Your task to perform on an android device: Go to battery settings Image 0: 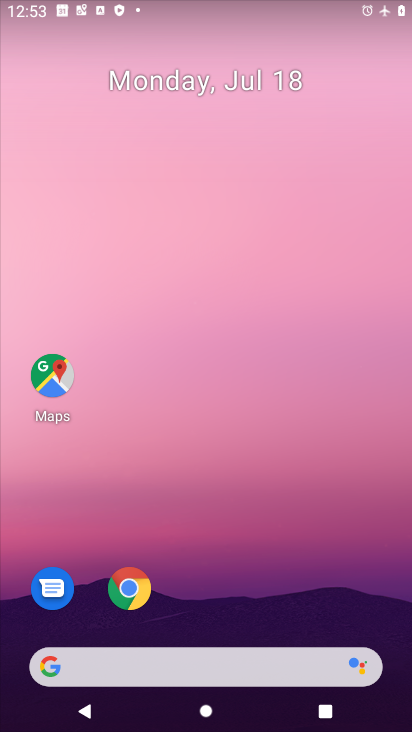
Step 0: drag from (297, 624) to (291, 102)
Your task to perform on an android device: Go to battery settings Image 1: 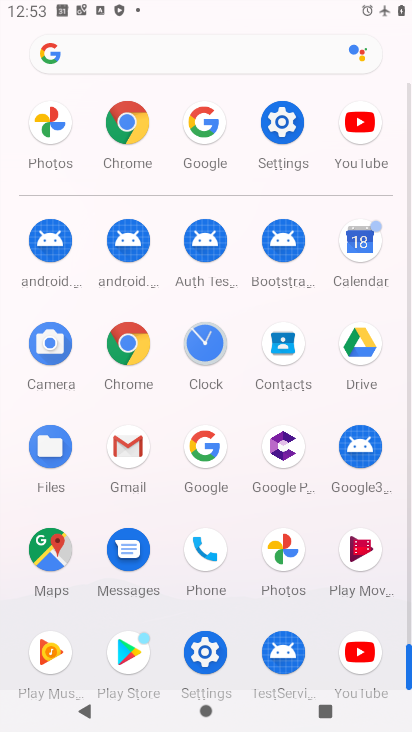
Step 1: click (251, 143)
Your task to perform on an android device: Go to battery settings Image 2: 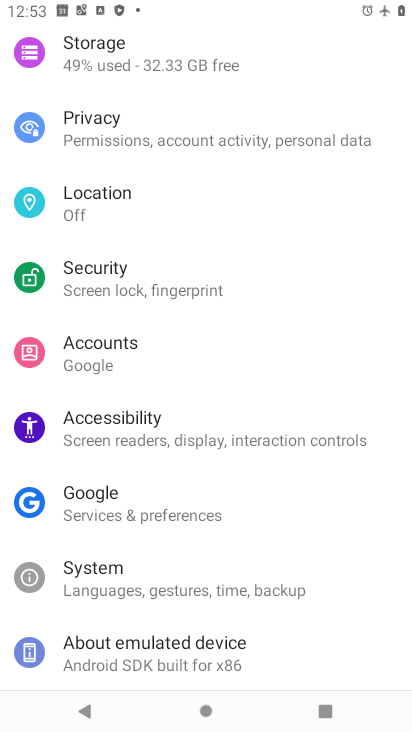
Step 2: drag from (114, 130) to (168, 685)
Your task to perform on an android device: Go to battery settings Image 3: 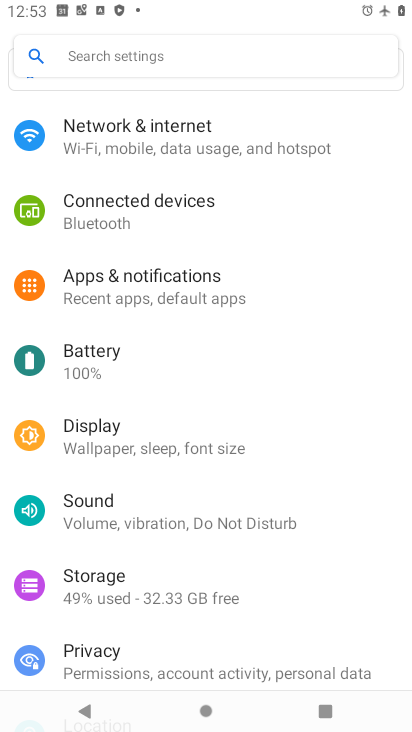
Step 3: click (106, 373)
Your task to perform on an android device: Go to battery settings Image 4: 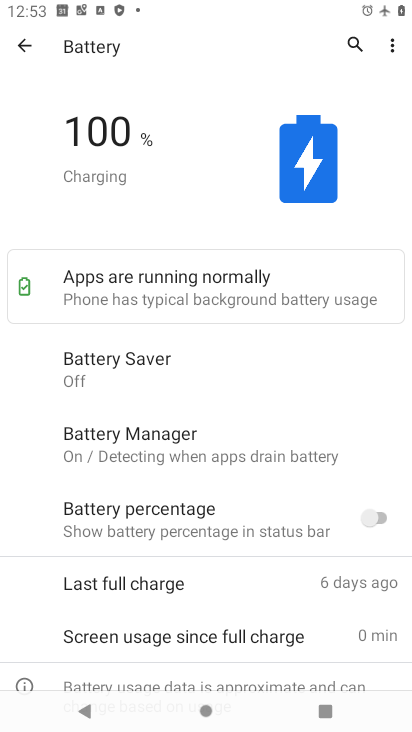
Step 4: task complete